Your task to perform on an android device: Find coffee shops on Maps Image 0: 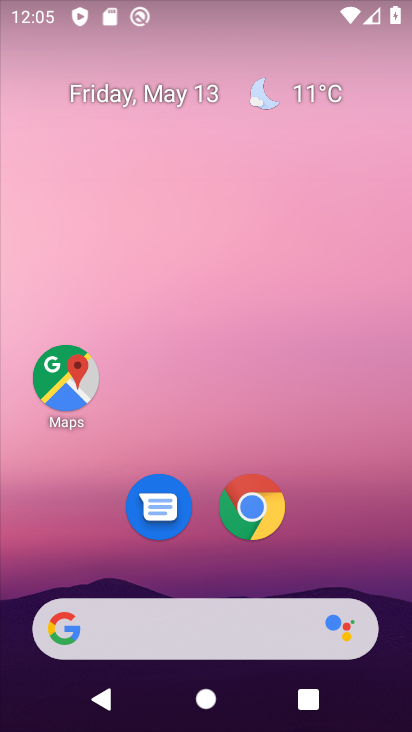
Step 0: press home button
Your task to perform on an android device: Find coffee shops on Maps Image 1: 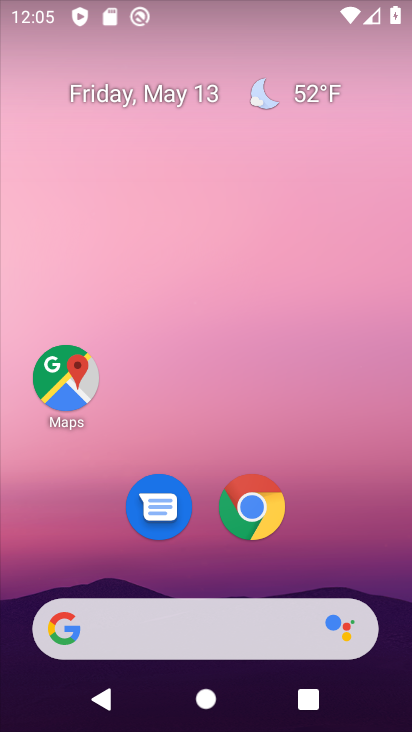
Step 1: click (67, 386)
Your task to perform on an android device: Find coffee shops on Maps Image 2: 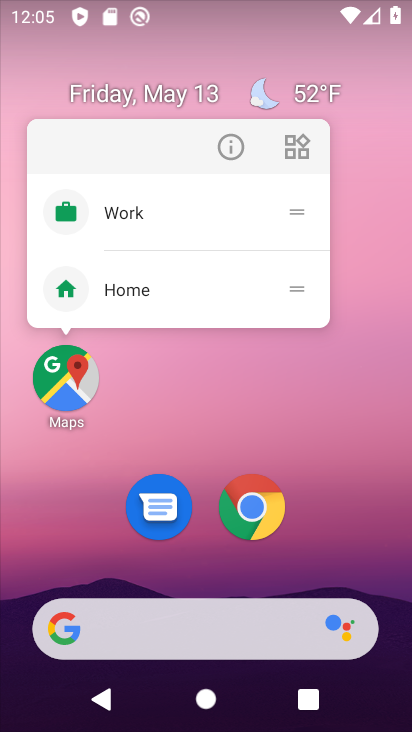
Step 2: click (67, 386)
Your task to perform on an android device: Find coffee shops on Maps Image 3: 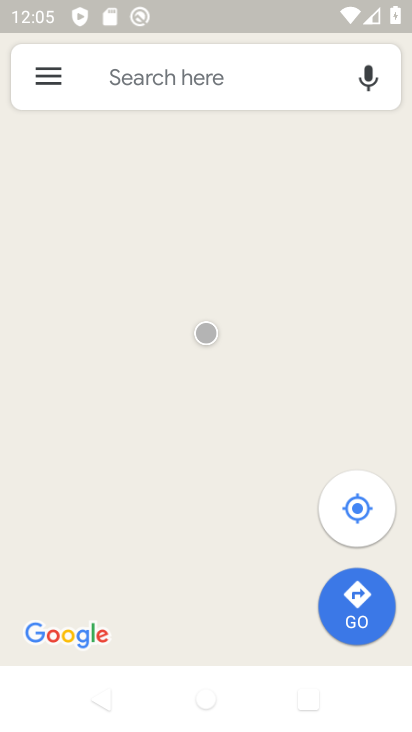
Step 3: click (176, 79)
Your task to perform on an android device: Find coffee shops on Maps Image 4: 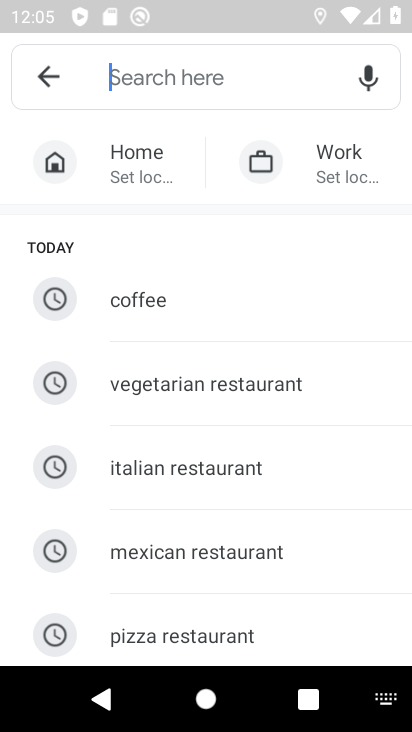
Step 4: click (172, 301)
Your task to perform on an android device: Find coffee shops on Maps Image 5: 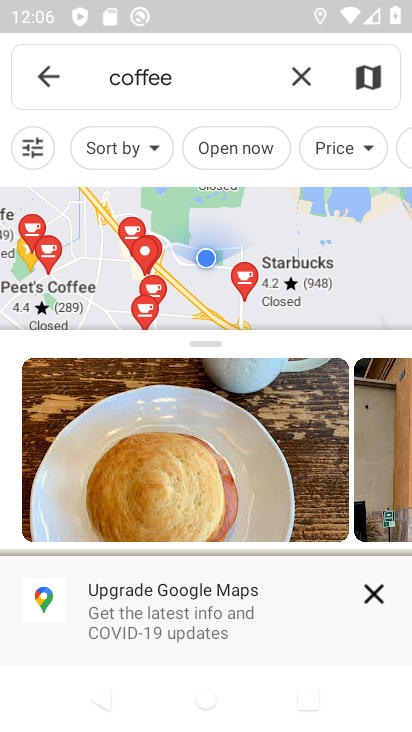
Step 5: task complete